Your task to perform on an android device: make emails show in primary in the gmail app Image 0: 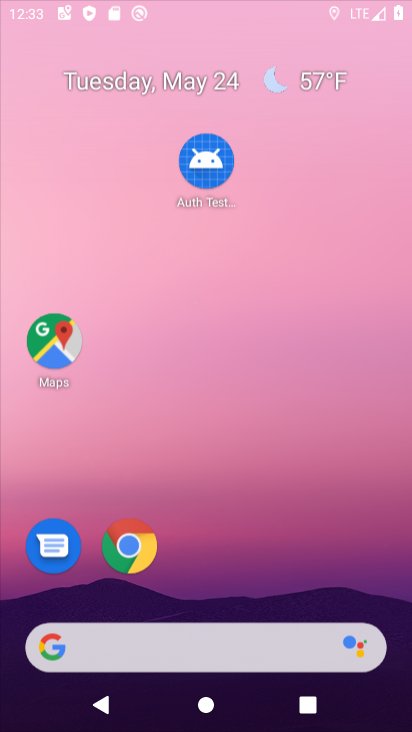
Step 0: click (280, 50)
Your task to perform on an android device: make emails show in primary in the gmail app Image 1: 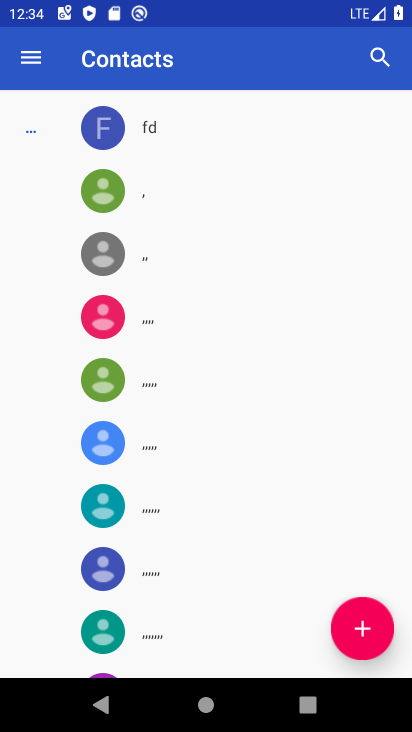
Step 1: drag from (225, 614) to (310, 11)
Your task to perform on an android device: make emails show in primary in the gmail app Image 2: 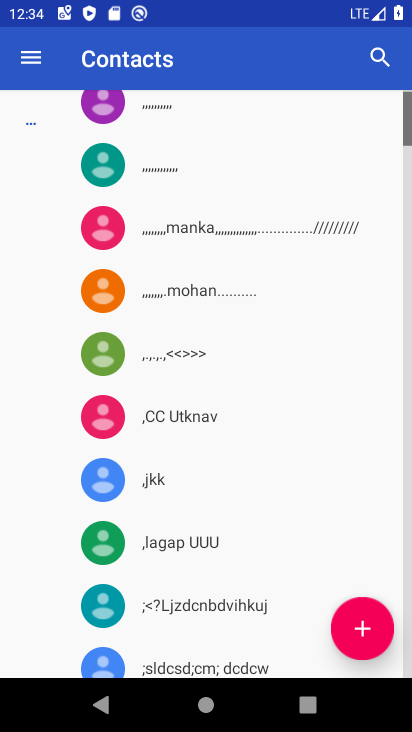
Step 2: drag from (245, 527) to (279, 105)
Your task to perform on an android device: make emails show in primary in the gmail app Image 3: 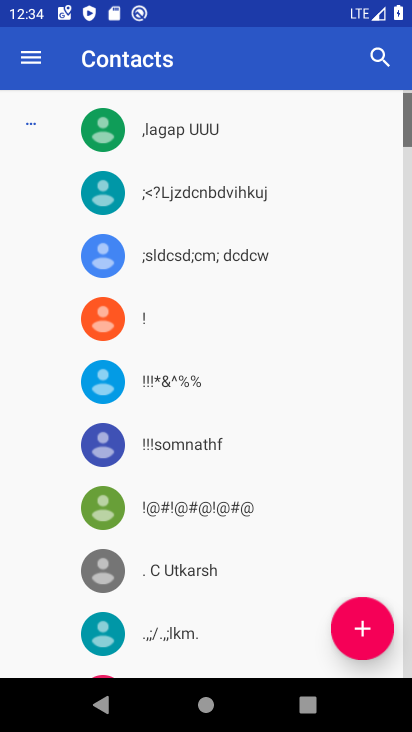
Step 3: drag from (244, 596) to (248, 265)
Your task to perform on an android device: make emails show in primary in the gmail app Image 4: 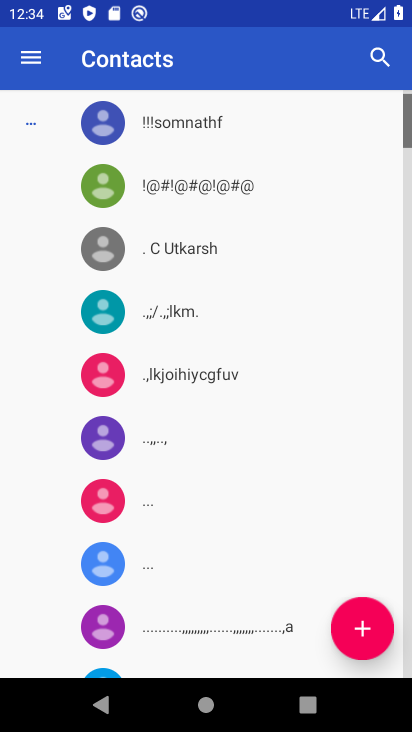
Step 4: drag from (237, 221) to (362, 272)
Your task to perform on an android device: make emails show in primary in the gmail app Image 5: 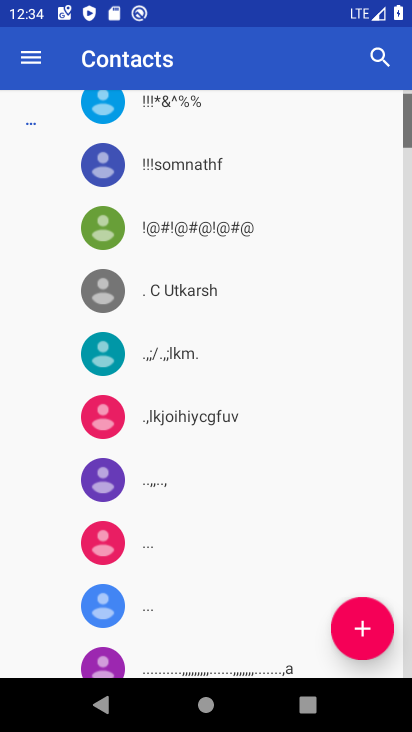
Step 5: drag from (201, 179) to (238, 725)
Your task to perform on an android device: make emails show in primary in the gmail app Image 6: 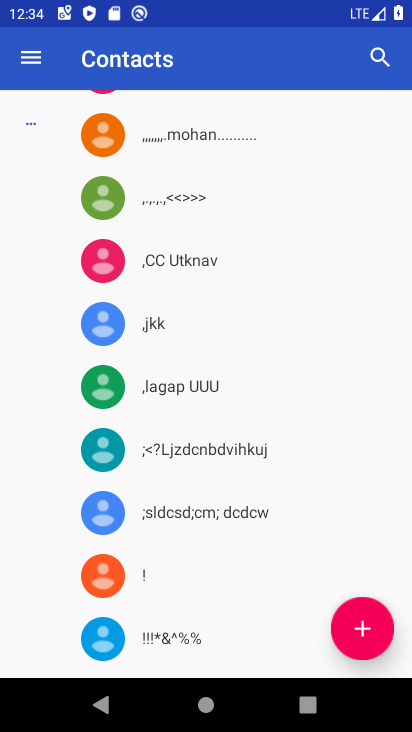
Step 6: drag from (164, 572) to (282, 160)
Your task to perform on an android device: make emails show in primary in the gmail app Image 7: 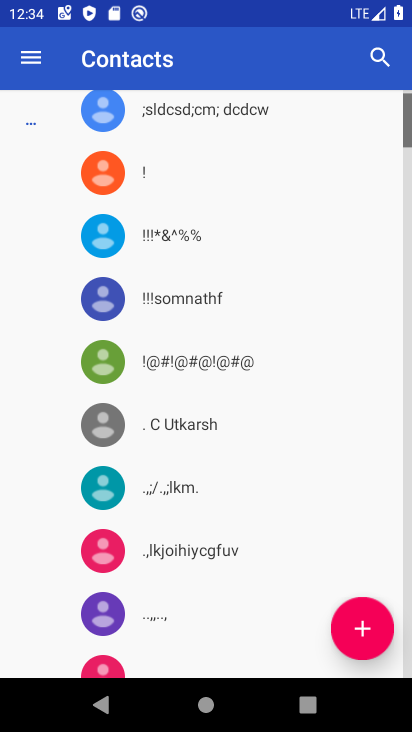
Step 7: drag from (284, 127) to (308, 725)
Your task to perform on an android device: make emails show in primary in the gmail app Image 8: 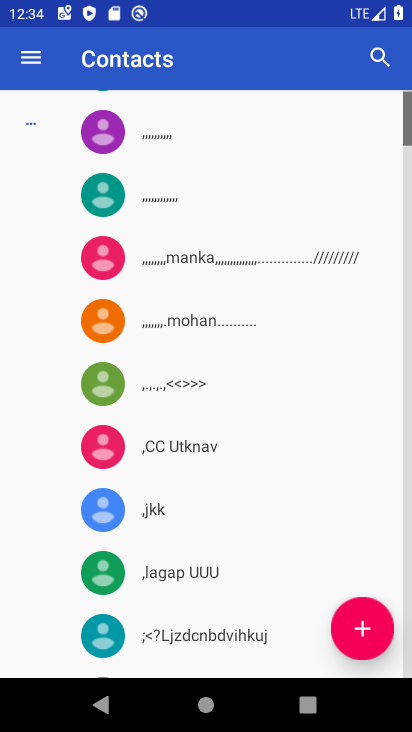
Step 8: press home button
Your task to perform on an android device: make emails show in primary in the gmail app Image 9: 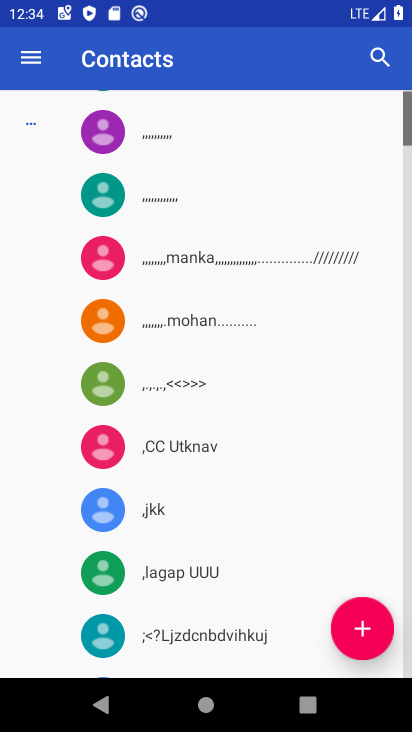
Step 9: drag from (308, 725) to (410, 478)
Your task to perform on an android device: make emails show in primary in the gmail app Image 10: 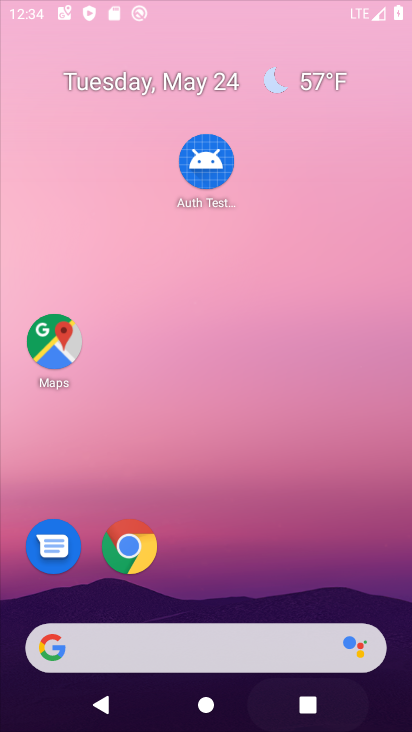
Step 10: drag from (195, 594) to (253, 6)
Your task to perform on an android device: make emails show in primary in the gmail app Image 11: 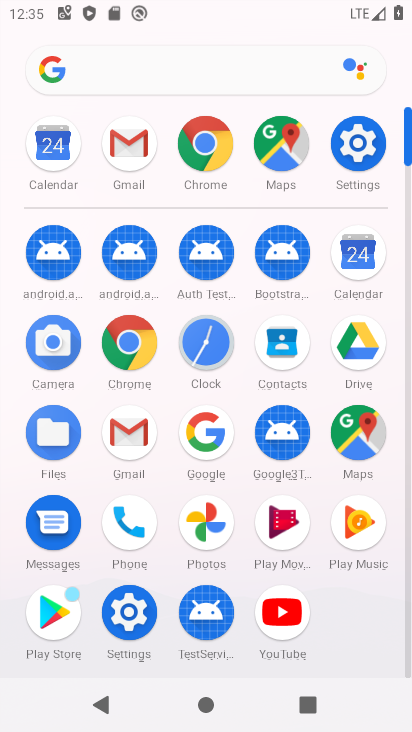
Step 11: click (123, 432)
Your task to perform on an android device: make emails show in primary in the gmail app Image 12: 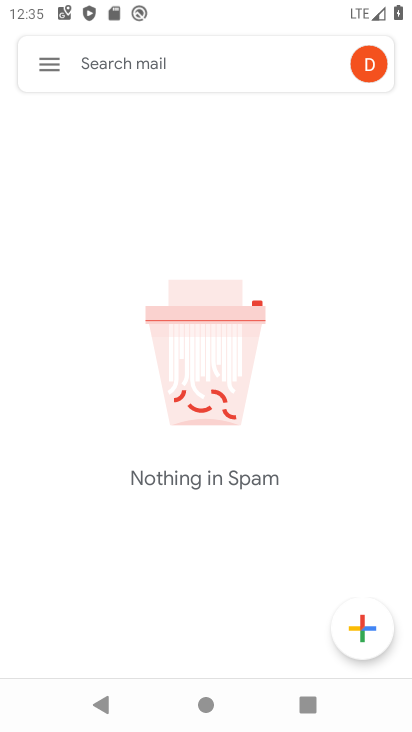
Step 12: task complete